Your task to perform on an android device: turn off notifications settings in the gmail app Image 0: 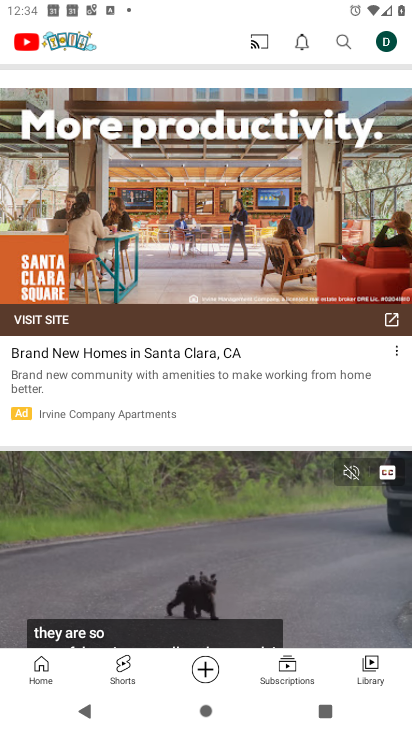
Step 0: press home button
Your task to perform on an android device: turn off notifications settings in the gmail app Image 1: 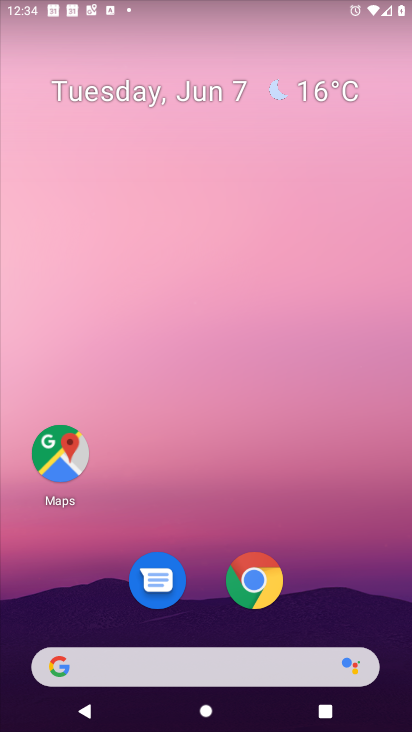
Step 1: drag from (356, 598) to (325, 64)
Your task to perform on an android device: turn off notifications settings in the gmail app Image 2: 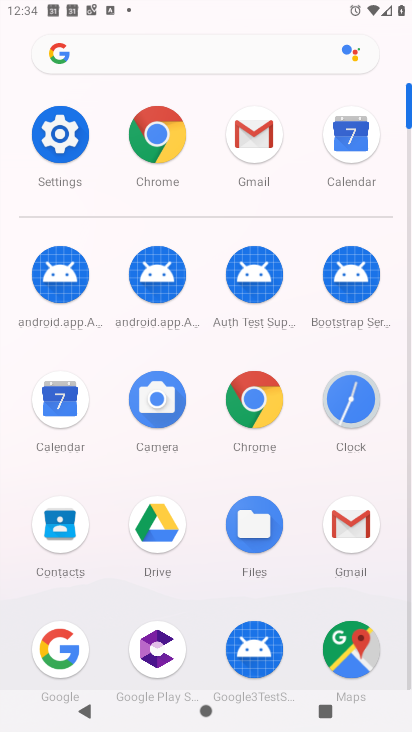
Step 2: click (371, 523)
Your task to perform on an android device: turn off notifications settings in the gmail app Image 3: 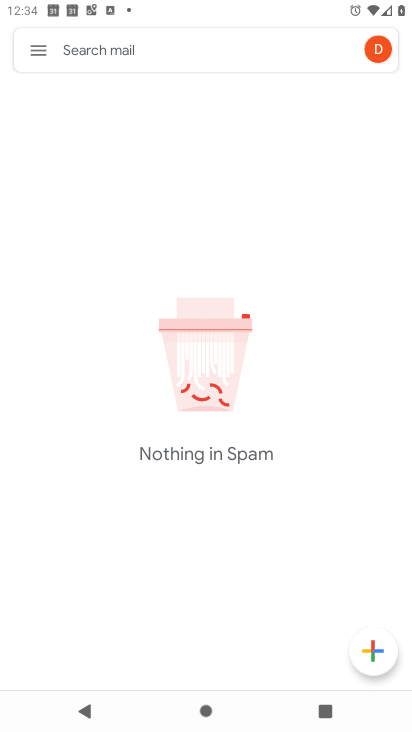
Step 3: click (37, 55)
Your task to perform on an android device: turn off notifications settings in the gmail app Image 4: 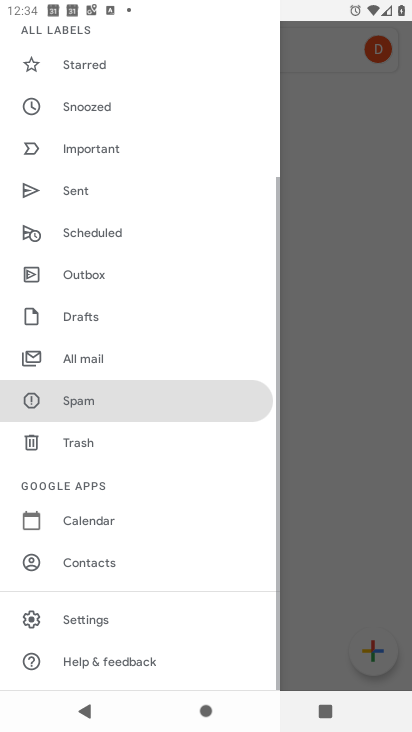
Step 4: drag from (149, 563) to (214, 78)
Your task to perform on an android device: turn off notifications settings in the gmail app Image 5: 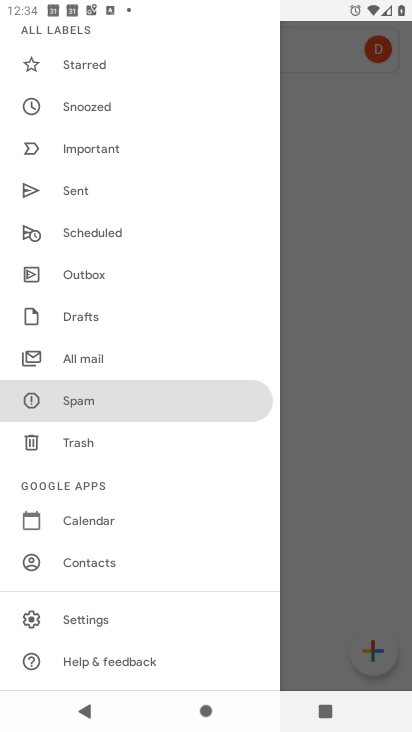
Step 5: click (94, 609)
Your task to perform on an android device: turn off notifications settings in the gmail app Image 6: 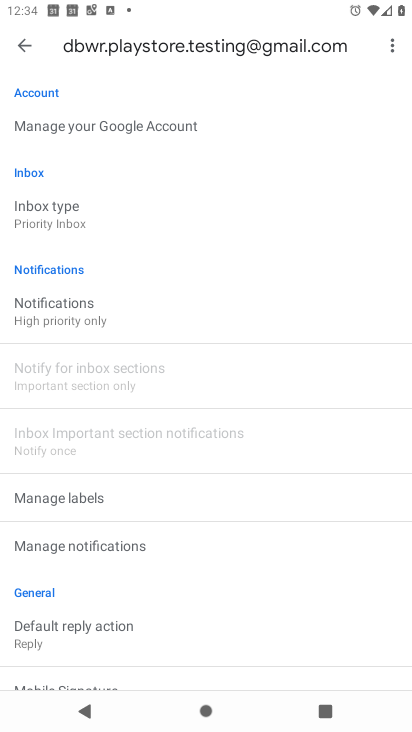
Step 6: click (56, 331)
Your task to perform on an android device: turn off notifications settings in the gmail app Image 7: 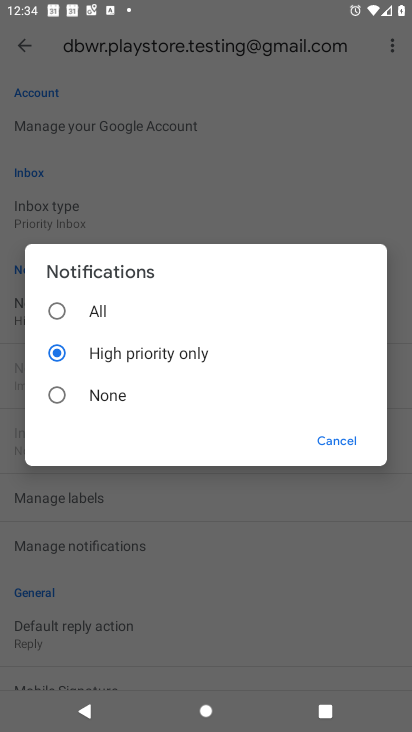
Step 7: click (61, 392)
Your task to perform on an android device: turn off notifications settings in the gmail app Image 8: 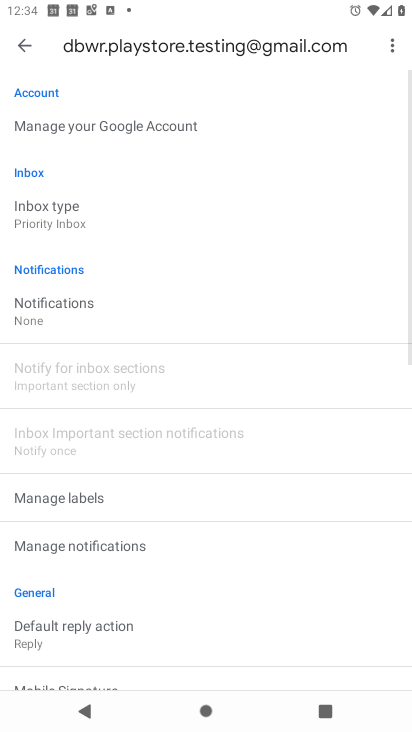
Step 8: task complete